Your task to perform on an android device: Open Youtube and go to the subscriptions tab Image 0: 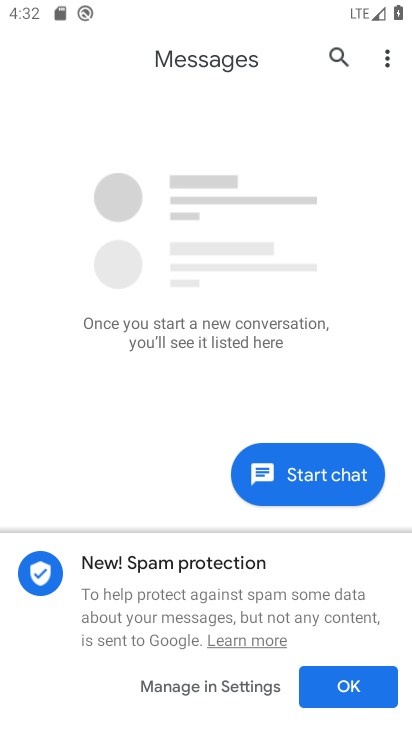
Step 0: press home button
Your task to perform on an android device: Open Youtube and go to the subscriptions tab Image 1: 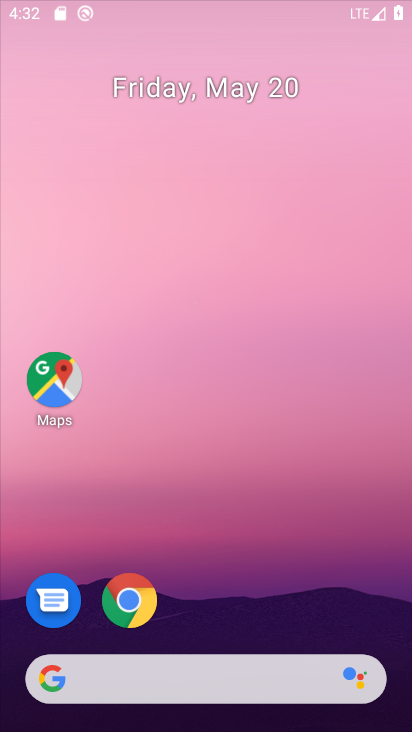
Step 1: drag from (285, 433) to (159, 28)
Your task to perform on an android device: Open Youtube and go to the subscriptions tab Image 2: 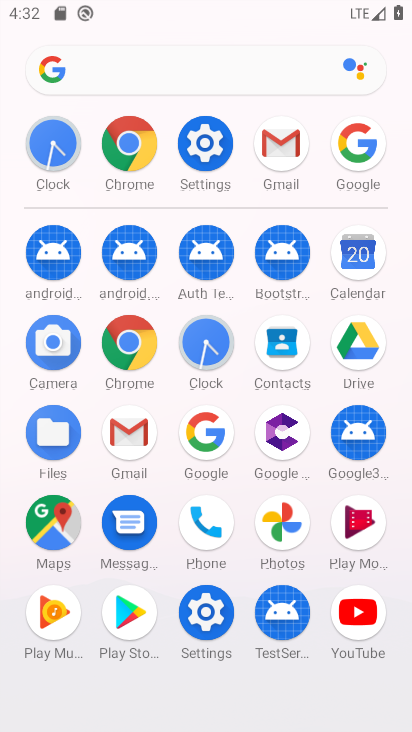
Step 2: click (371, 614)
Your task to perform on an android device: Open Youtube and go to the subscriptions tab Image 3: 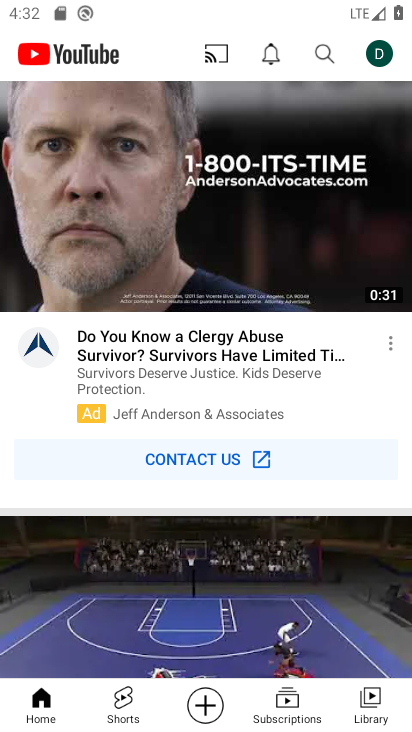
Step 3: click (280, 700)
Your task to perform on an android device: Open Youtube and go to the subscriptions tab Image 4: 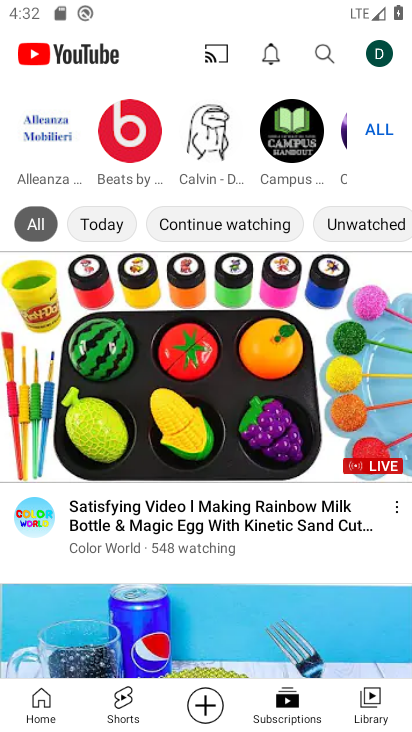
Step 4: task complete